Your task to perform on an android device: Go to battery settings Image 0: 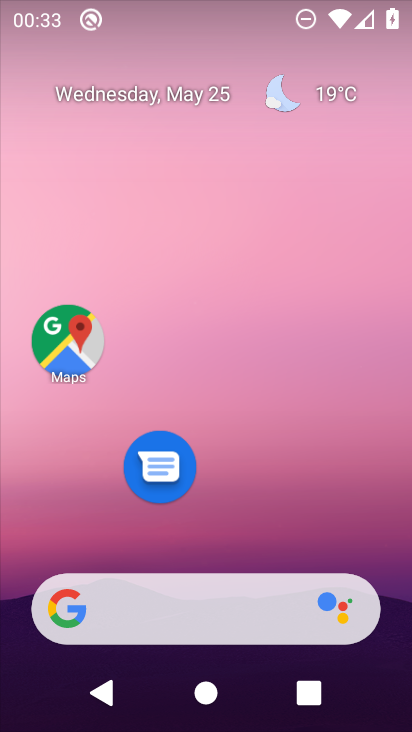
Step 0: drag from (213, 519) to (214, 198)
Your task to perform on an android device: Go to battery settings Image 1: 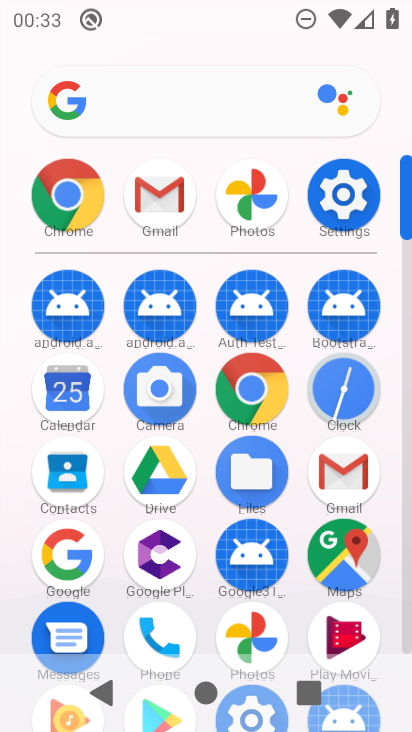
Step 1: click (346, 198)
Your task to perform on an android device: Go to battery settings Image 2: 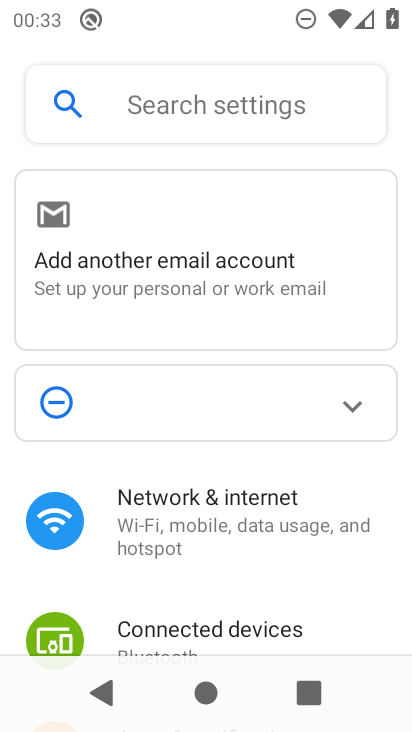
Step 2: drag from (186, 599) to (274, 183)
Your task to perform on an android device: Go to battery settings Image 3: 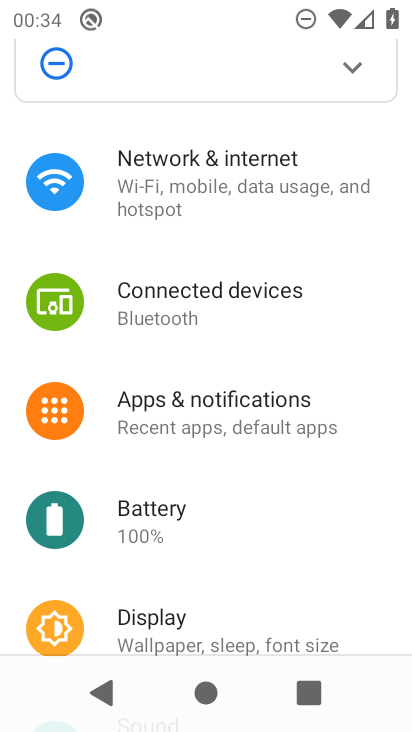
Step 3: click (182, 520)
Your task to perform on an android device: Go to battery settings Image 4: 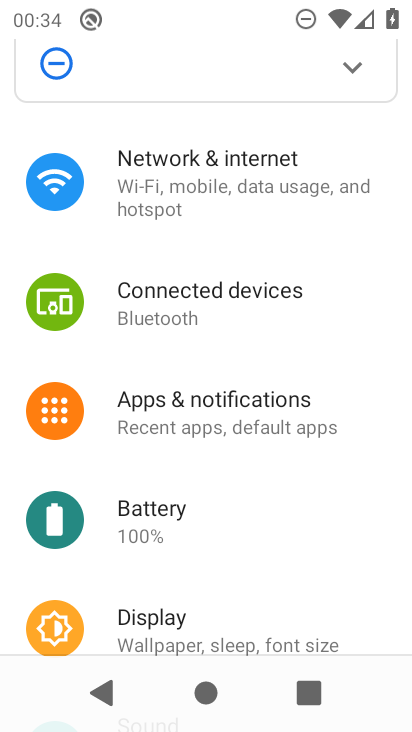
Step 4: click (182, 519)
Your task to perform on an android device: Go to battery settings Image 5: 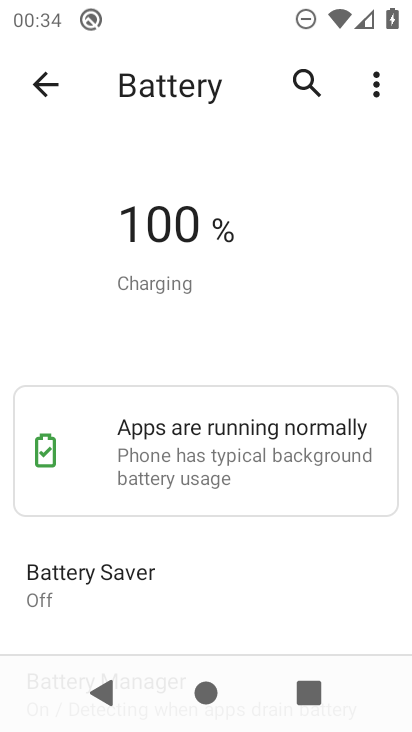
Step 5: task complete